Your task to perform on an android device: What's on my calendar for the rest of the month? Image 0: 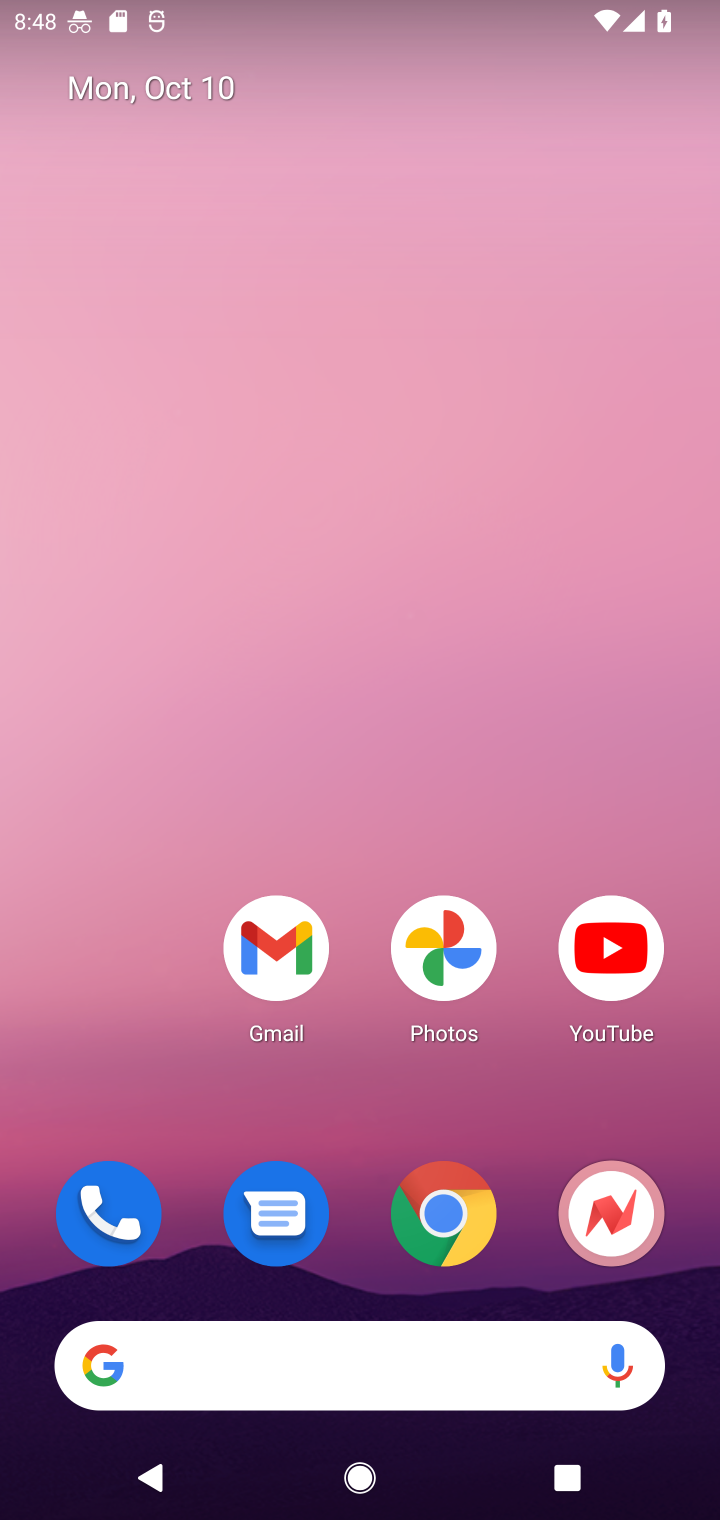
Step 0: drag from (408, 543) to (414, 0)
Your task to perform on an android device: What's on my calendar for the rest of the month? Image 1: 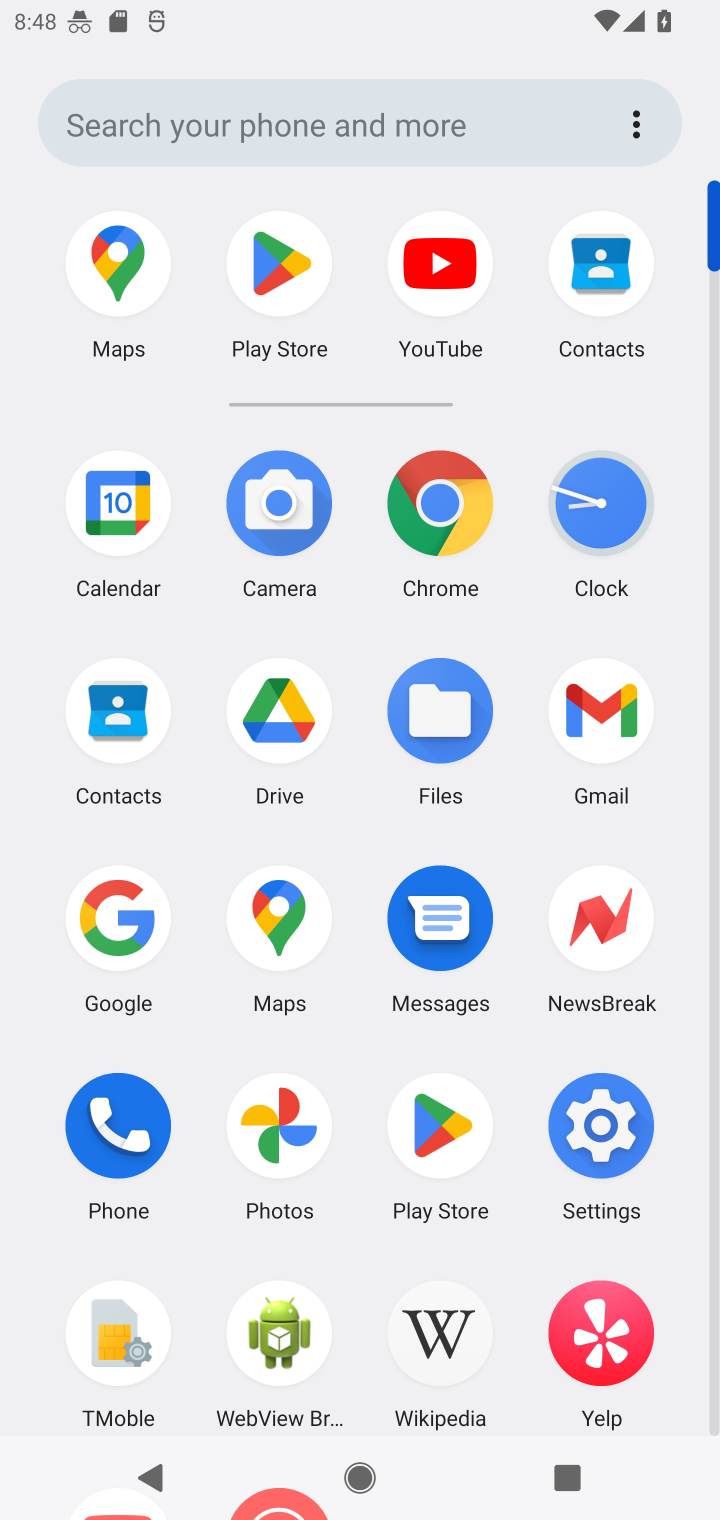
Step 1: click (131, 493)
Your task to perform on an android device: What's on my calendar for the rest of the month? Image 2: 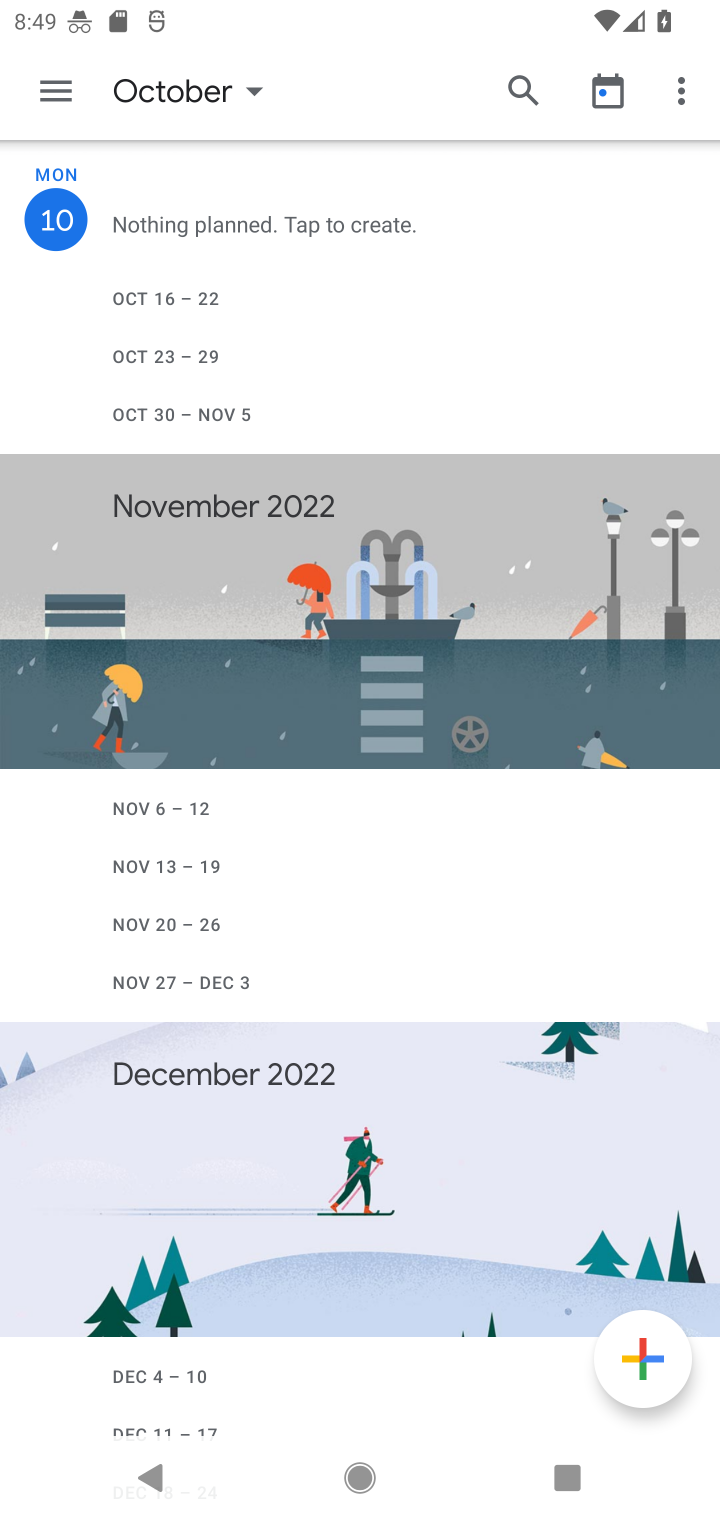
Step 2: task complete